Your task to perform on an android device: Go to wifi settings Image 0: 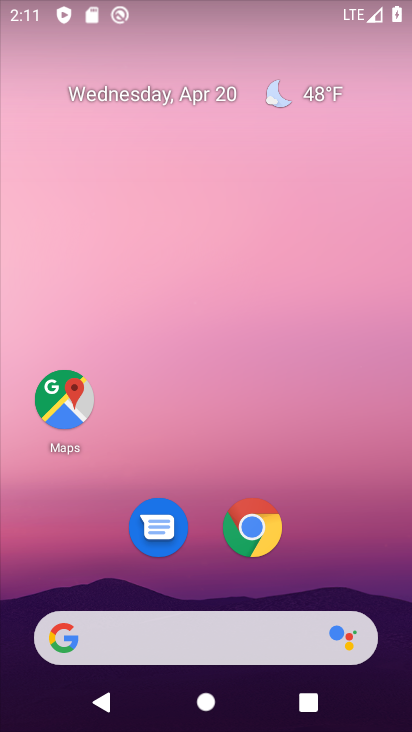
Step 0: drag from (315, 18) to (244, 529)
Your task to perform on an android device: Go to wifi settings Image 1: 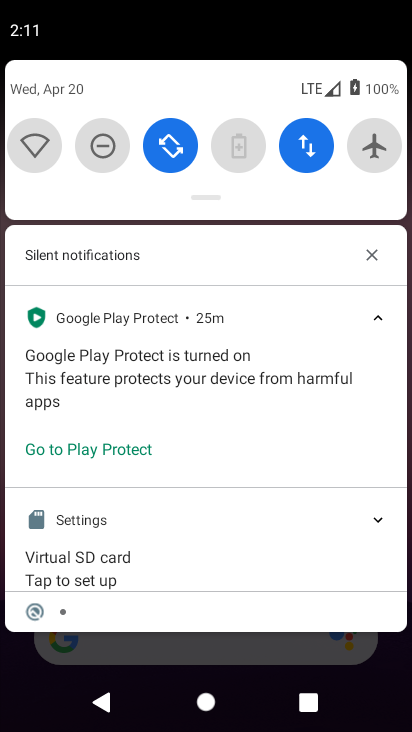
Step 1: click (49, 142)
Your task to perform on an android device: Go to wifi settings Image 2: 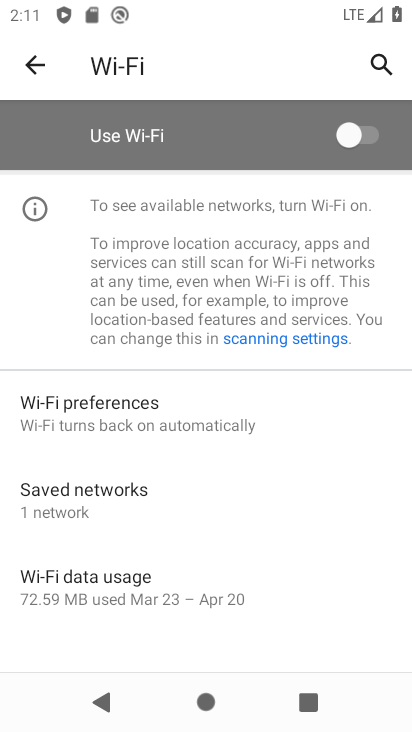
Step 2: task complete